Your task to perform on an android device: star an email in the gmail app Image 0: 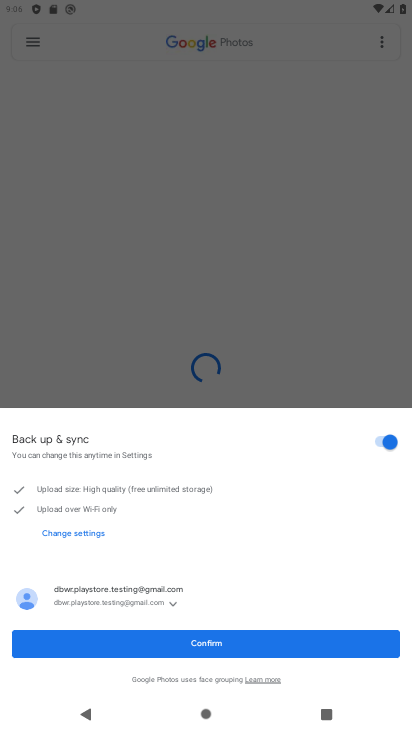
Step 0: press home button
Your task to perform on an android device: star an email in the gmail app Image 1: 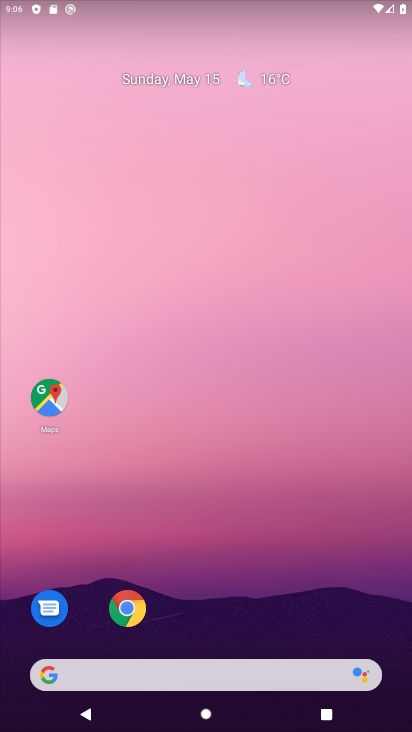
Step 1: drag from (207, 655) to (168, 46)
Your task to perform on an android device: star an email in the gmail app Image 2: 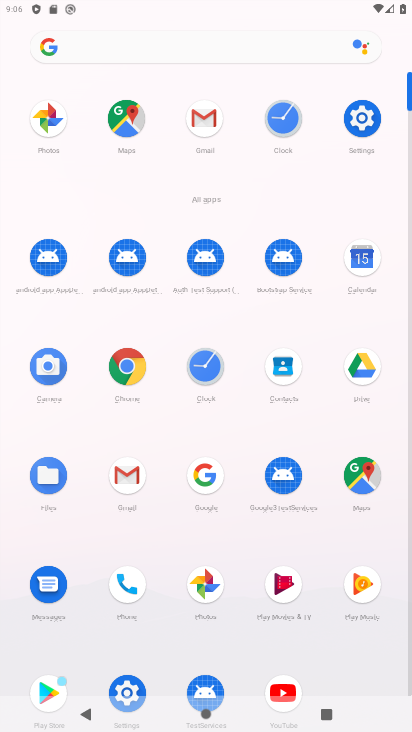
Step 2: click (127, 466)
Your task to perform on an android device: star an email in the gmail app Image 3: 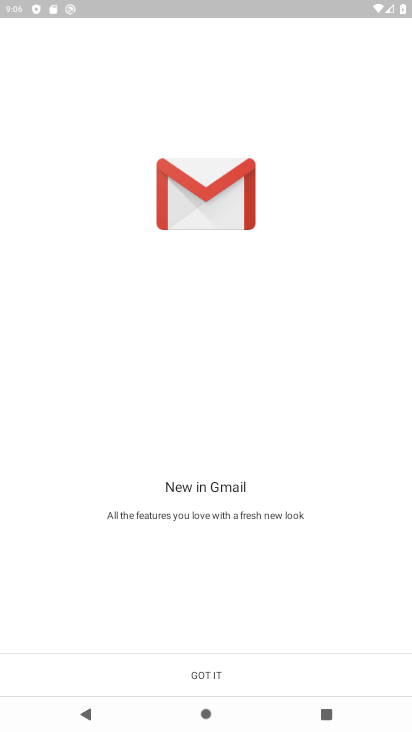
Step 3: click (218, 682)
Your task to perform on an android device: star an email in the gmail app Image 4: 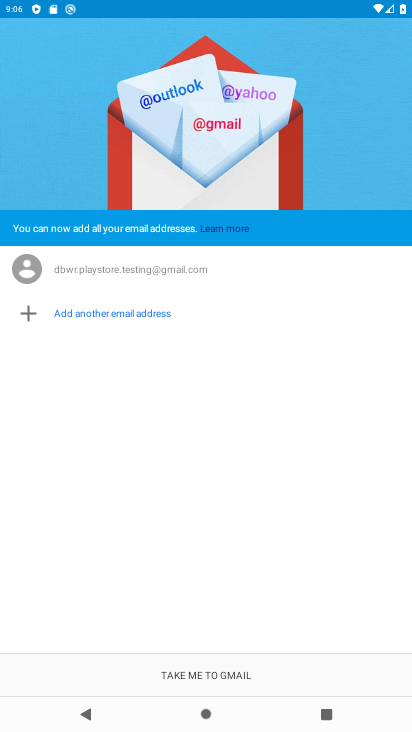
Step 4: click (218, 680)
Your task to perform on an android device: star an email in the gmail app Image 5: 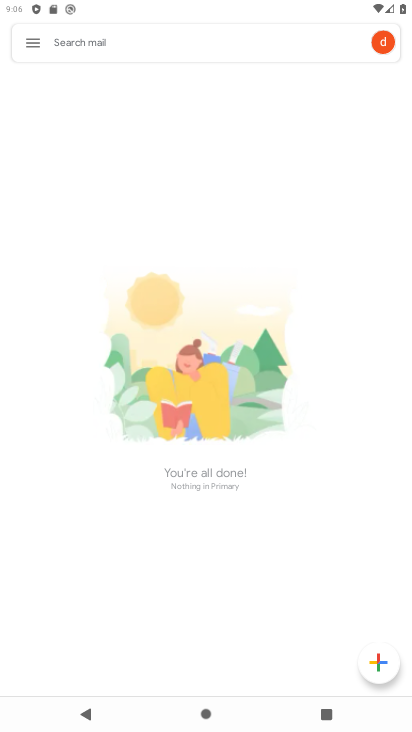
Step 5: click (18, 43)
Your task to perform on an android device: star an email in the gmail app Image 6: 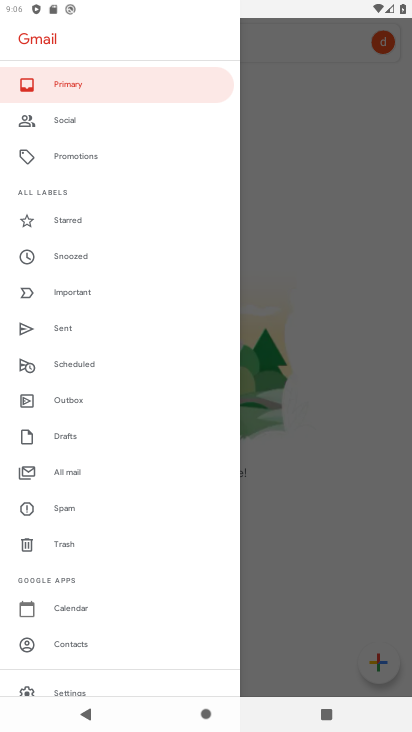
Step 6: click (69, 474)
Your task to perform on an android device: star an email in the gmail app Image 7: 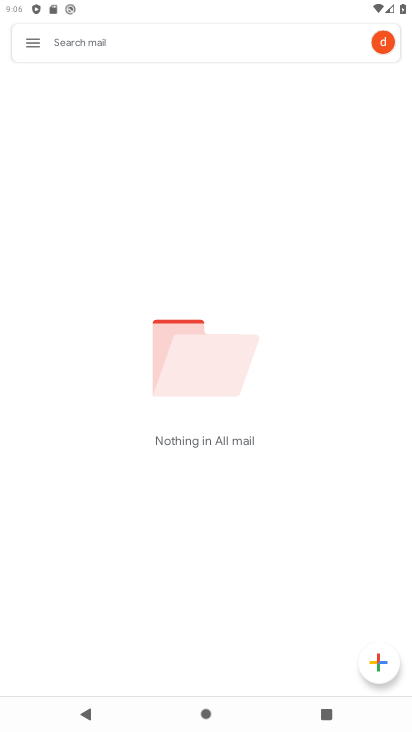
Step 7: task complete